Your task to perform on an android device: Open accessibility settings Image 0: 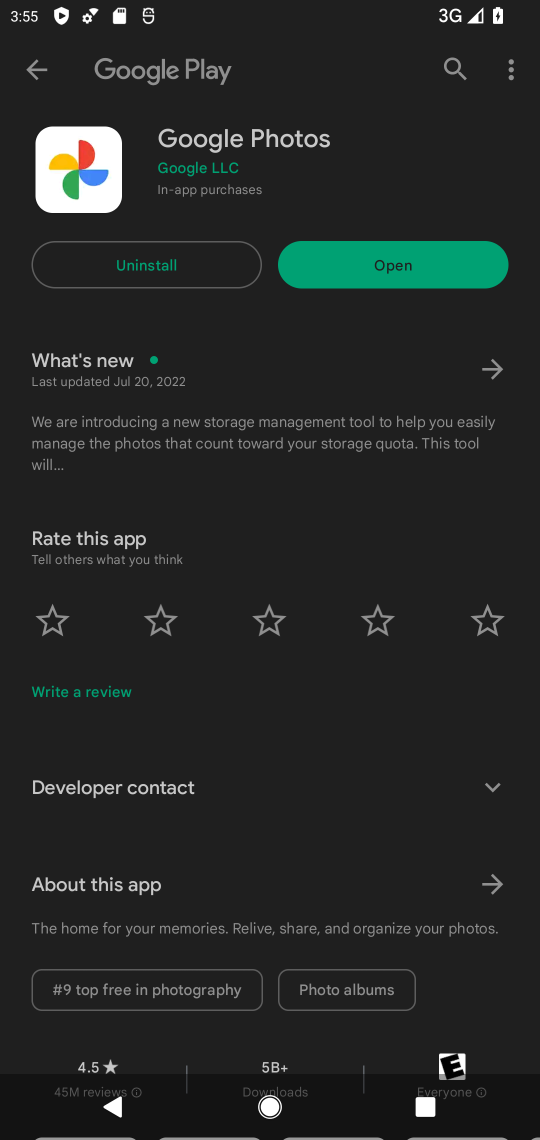
Step 0: press home button
Your task to perform on an android device: Open accessibility settings Image 1: 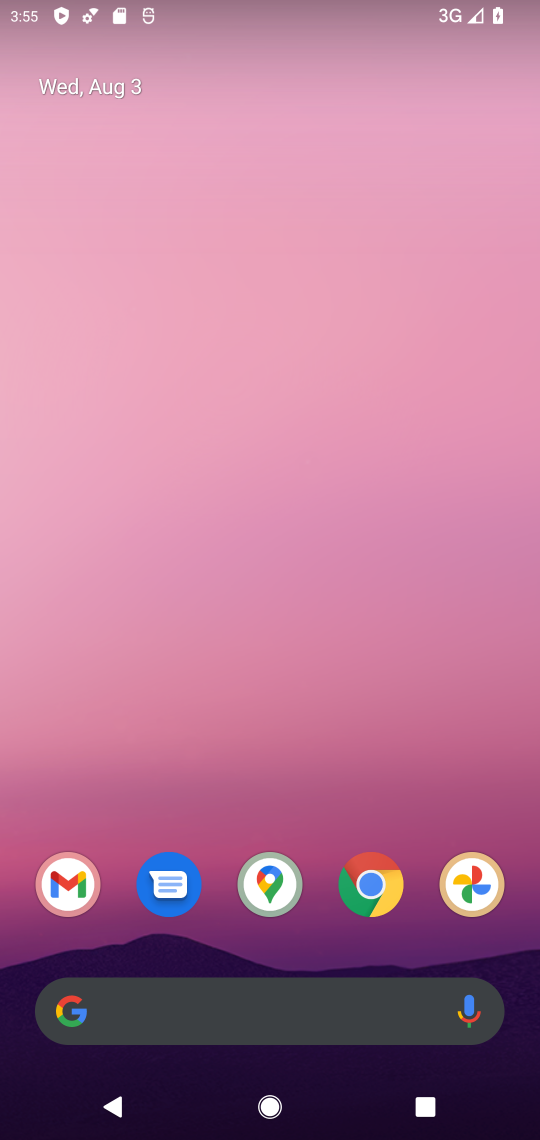
Step 1: drag from (203, 944) to (244, 199)
Your task to perform on an android device: Open accessibility settings Image 2: 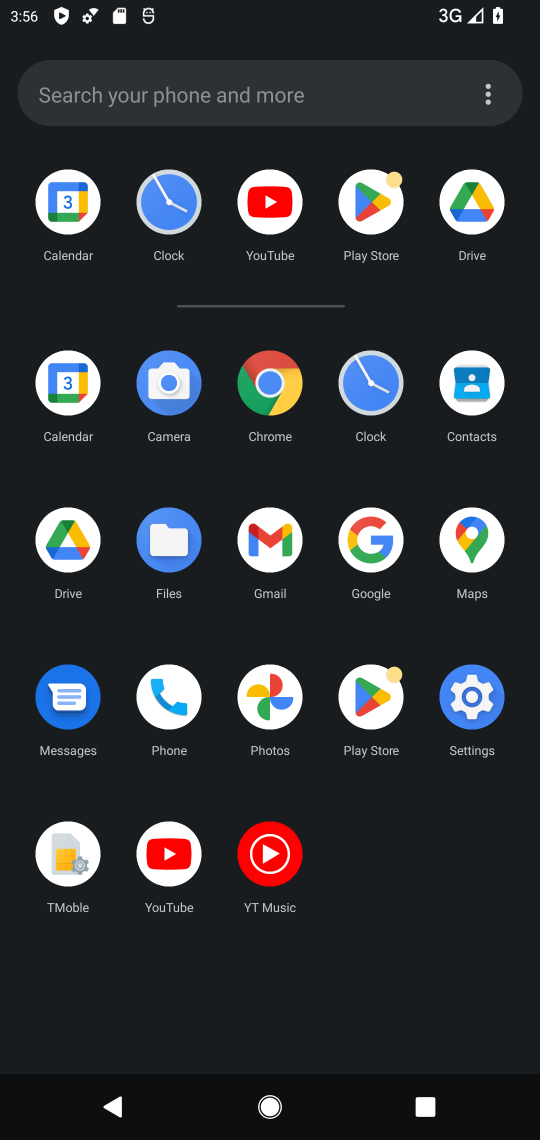
Step 2: click (476, 716)
Your task to perform on an android device: Open accessibility settings Image 3: 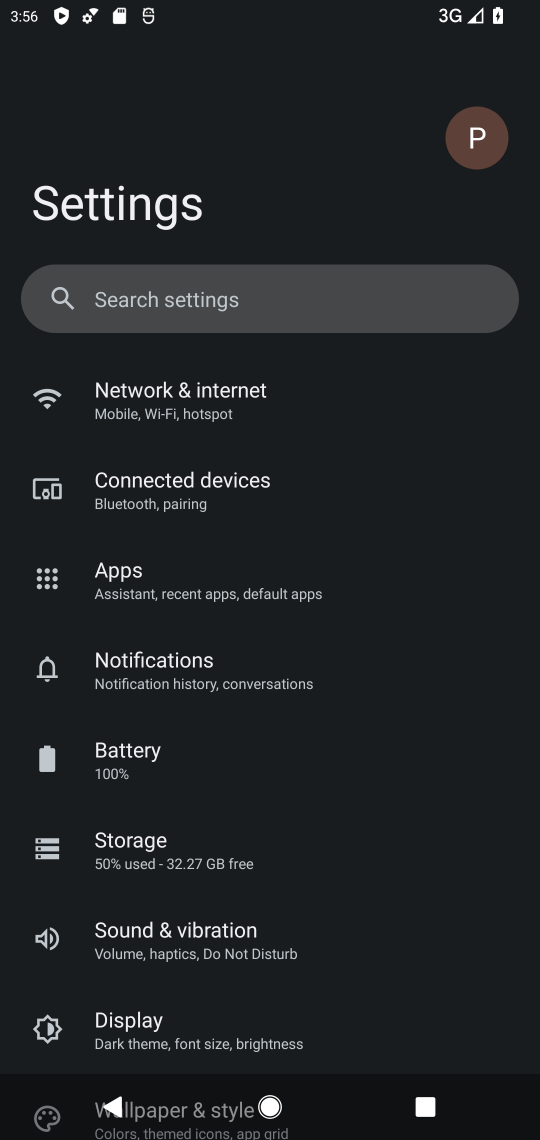
Step 3: drag from (252, 980) to (345, 397)
Your task to perform on an android device: Open accessibility settings Image 4: 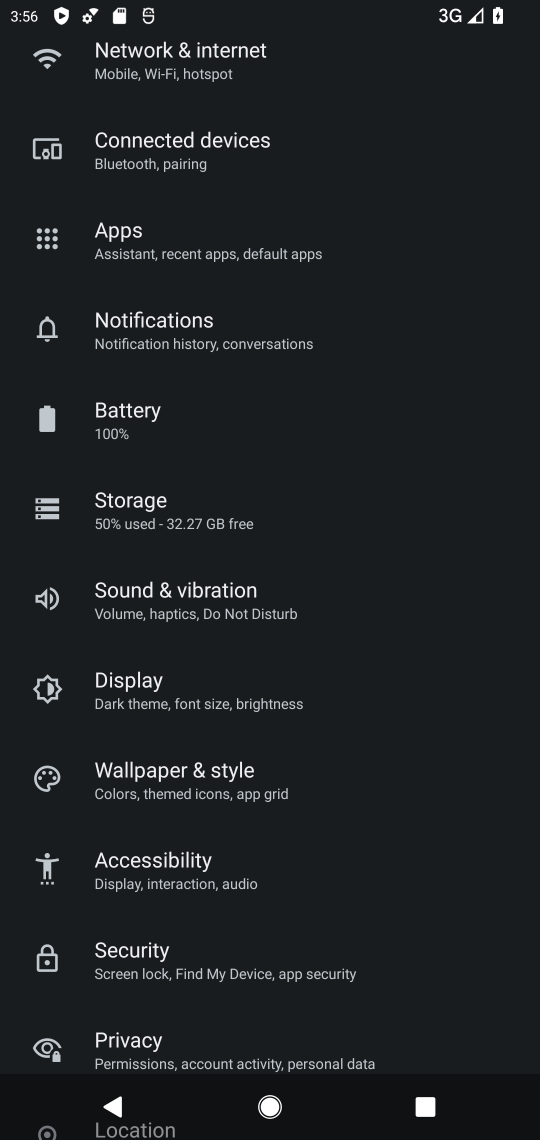
Step 4: drag from (210, 996) to (253, 652)
Your task to perform on an android device: Open accessibility settings Image 5: 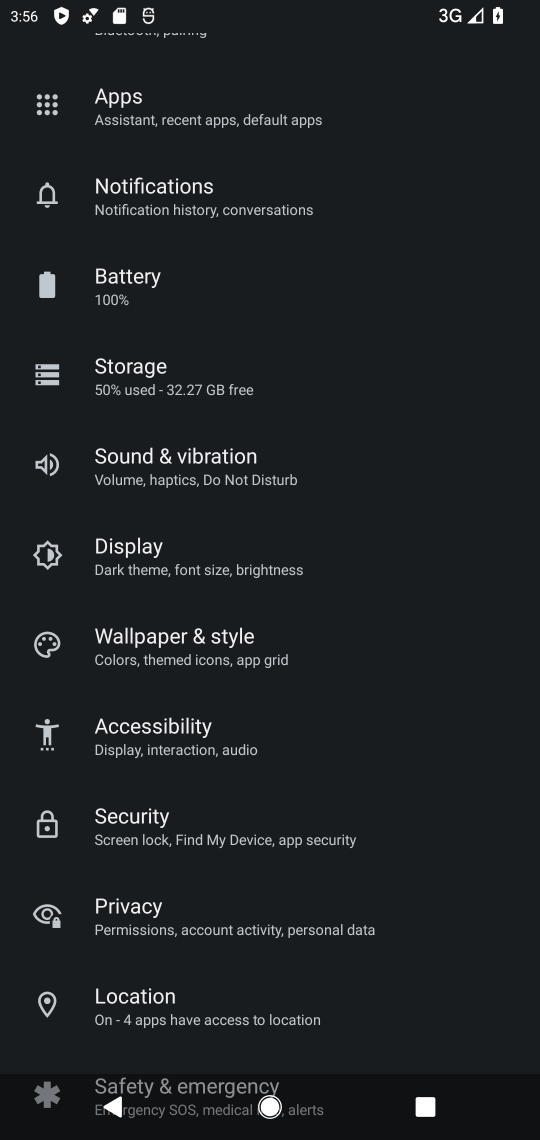
Step 5: click (206, 741)
Your task to perform on an android device: Open accessibility settings Image 6: 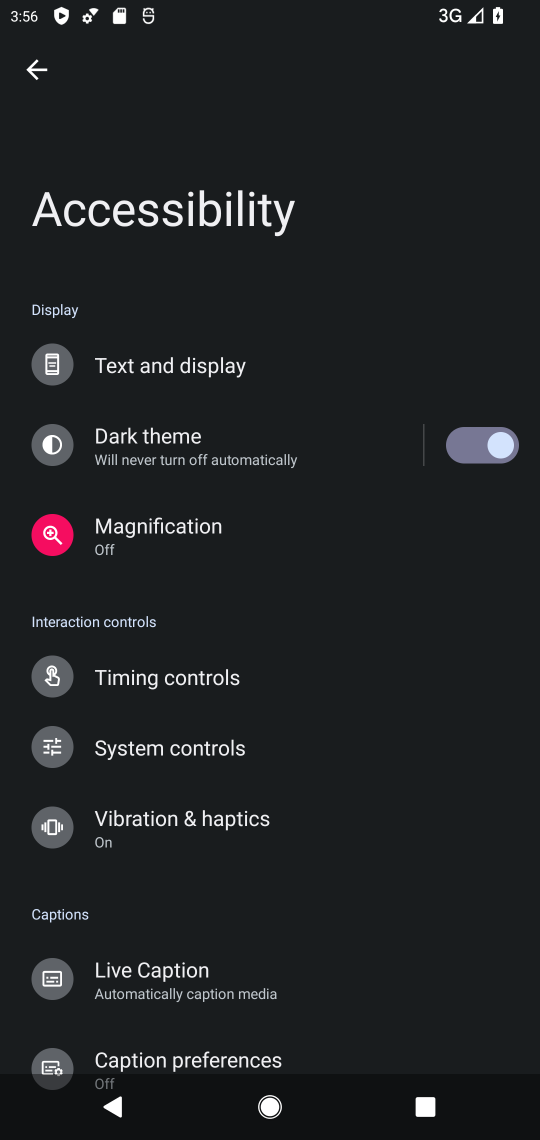
Step 6: task complete